Your task to perform on an android device: Open CNN.com Image 0: 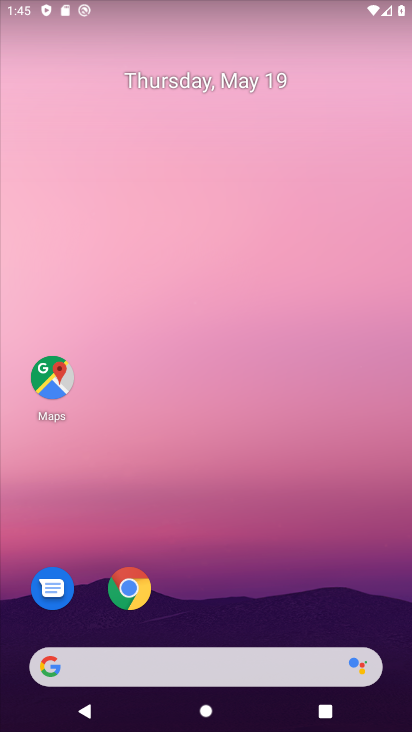
Step 0: drag from (208, 539) to (225, 41)
Your task to perform on an android device: Open CNN.com Image 1: 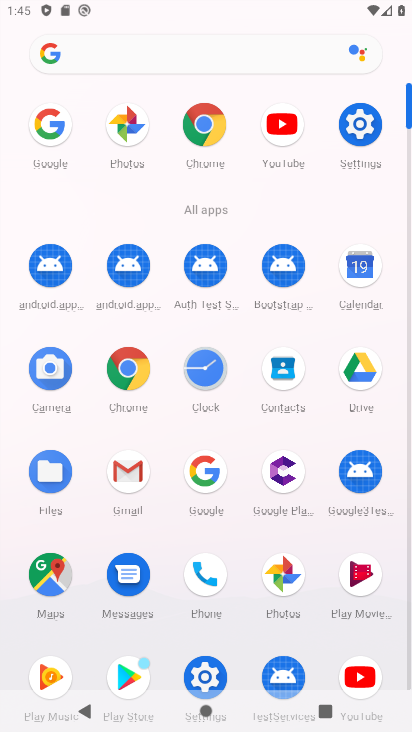
Step 1: click (208, 471)
Your task to perform on an android device: Open CNN.com Image 2: 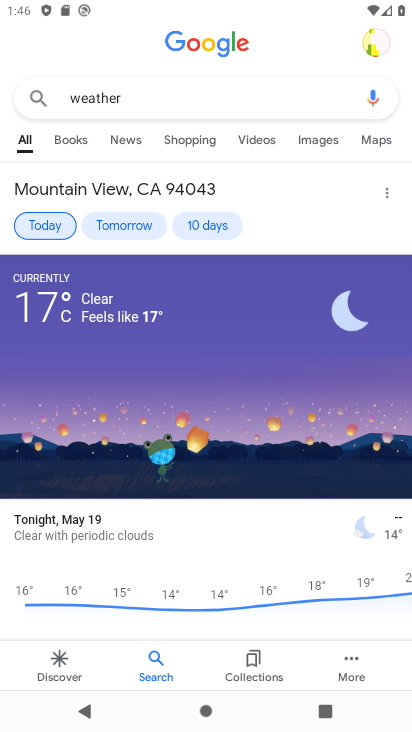
Step 2: click (242, 103)
Your task to perform on an android device: Open CNN.com Image 3: 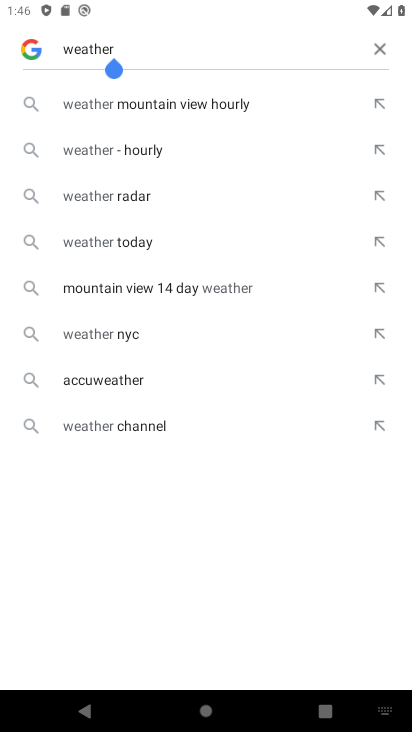
Step 3: click (374, 45)
Your task to perform on an android device: Open CNN.com Image 4: 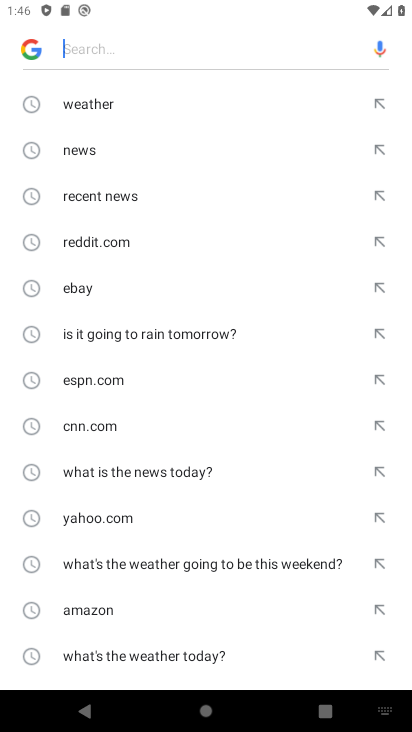
Step 4: click (112, 420)
Your task to perform on an android device: Open CNN.com Image 5: 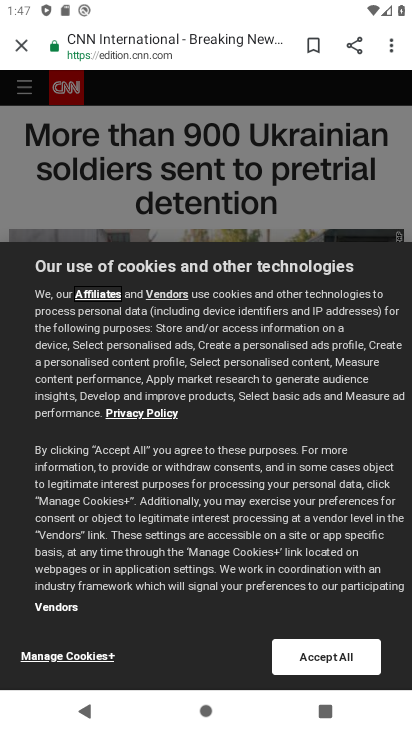
Step 5: task complete